Your task to perform on an android device: turn off notifications in google photos Image 0: 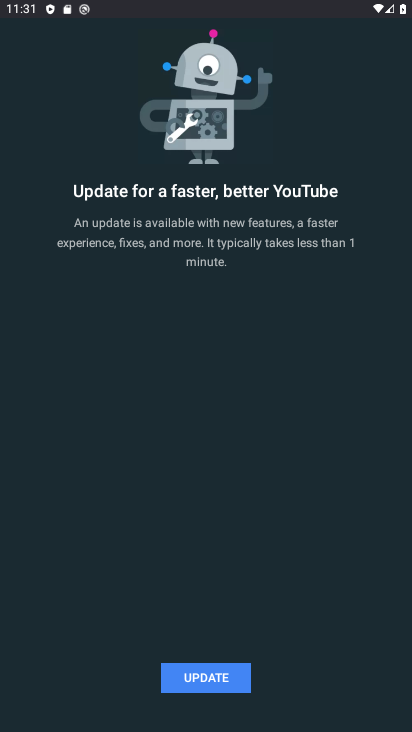
Step 0: press home button
Your task to perform on an android device: turn off notifications in google photos Image 1: 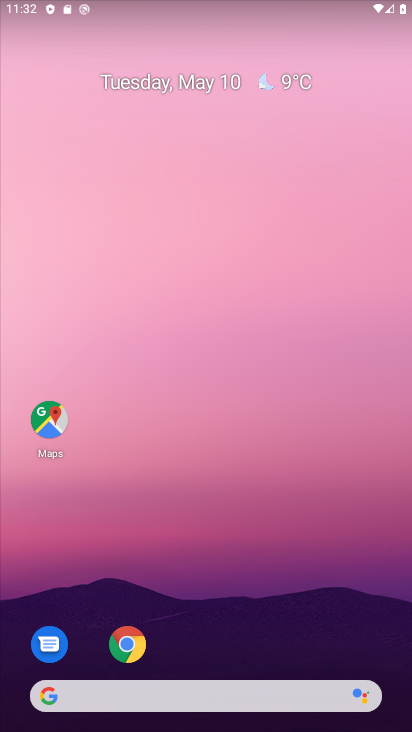
Step 1: drag from (202, 644) to (239, 222)
Your task to perform on an android device: turn off notifications in google photos Image 2: 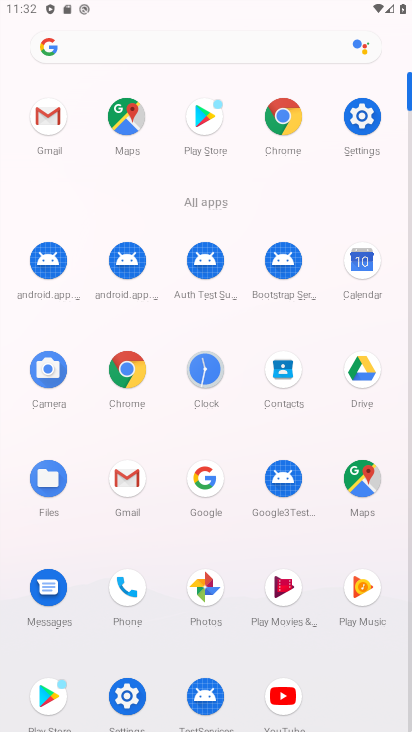
Step 2: click (222, 600)
Your task to perform on an android device: turn off notifications in google photos Image 3: 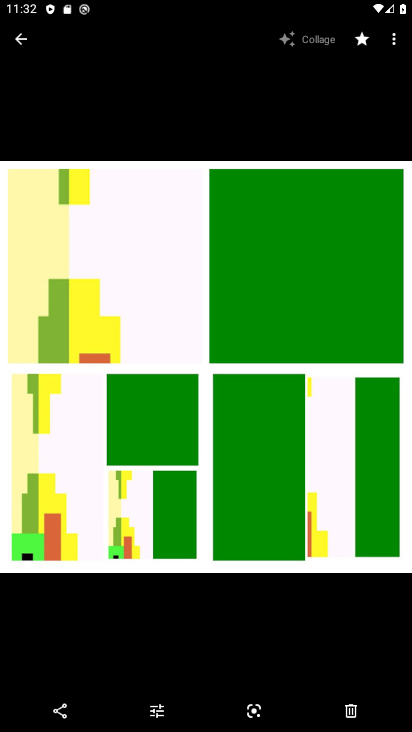
Step 3: click (18, 38)
Your task to perform on an android device: turn off notifications in google photos Image 4: 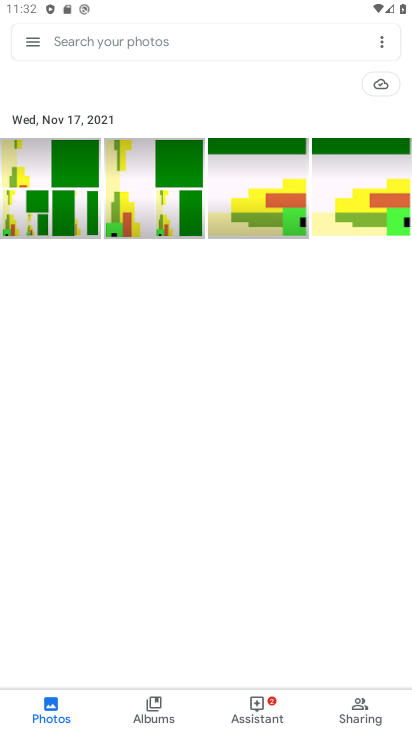
Step 4: click (34, 36)
Your task to perform on an android device: turn off notifications in google photos Image 5: 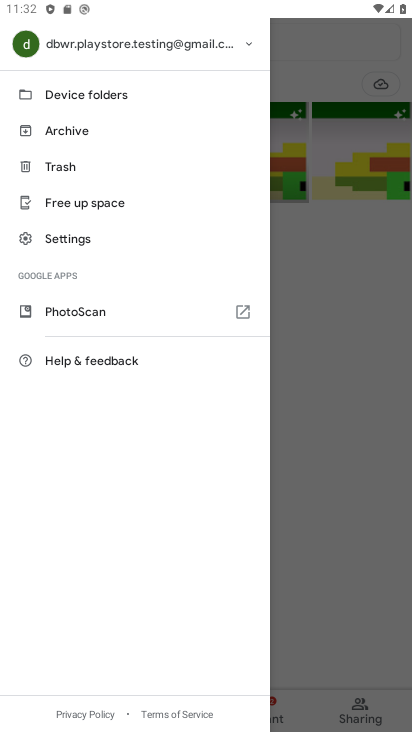
Step 5: click (81, 247)
Your task to perform on an android device: turn off notifications in google photos Image 6: 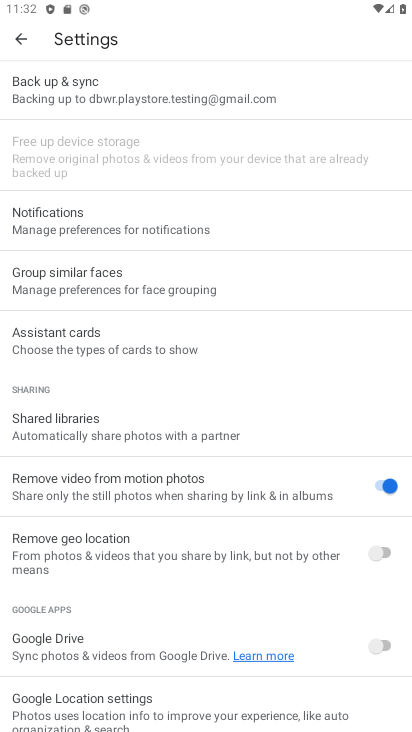
Step 6: click (75, 224)
Your task to perform on an android device: turn off notifications in google photos Image 7: 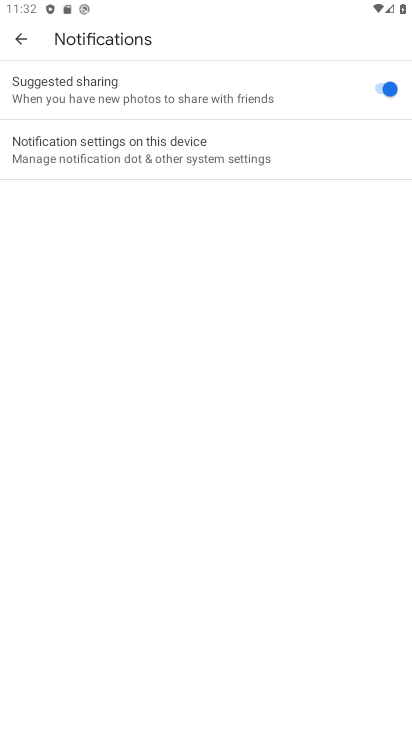
Step 7: click (107, 159)
Your task to perform on an android device: turn off notifications in google photos Image 8: 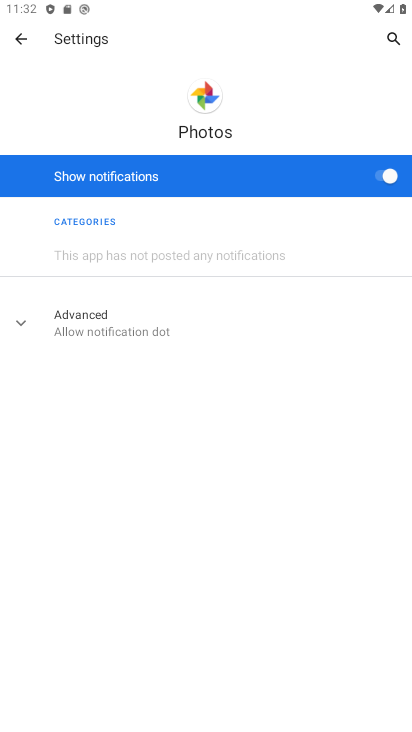
Step 8: click (344, 176)
Your task to perform on an android device: turn off notifications in google photos Image 9: 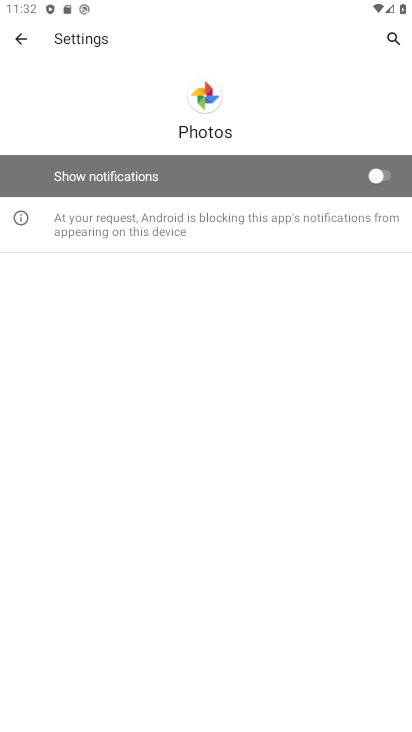
Step 9: task complete